Your task to perform on an android device: Open Youtube and go to "Your channel" Image 0: 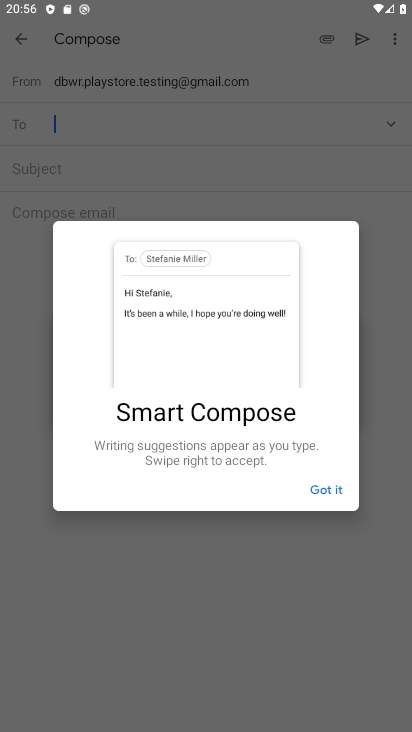
Step 0: press back button
Your task to perform on an android device: Open Youtube and go to "Your channel" Image 1: 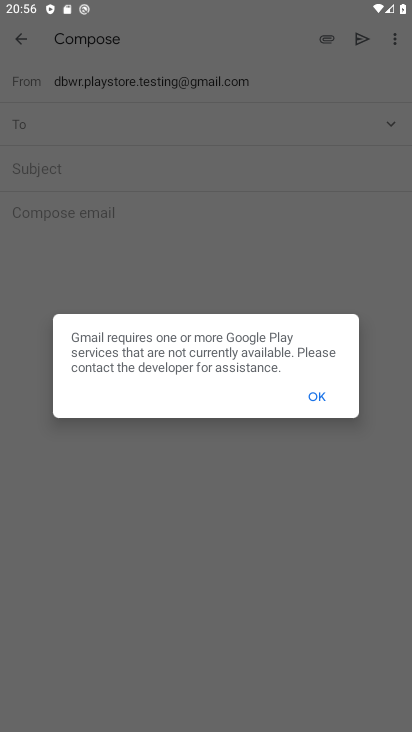
Step 1: press back button
Your task to perform on an android device: Open Youtube and go to "Your channel" Image 2: 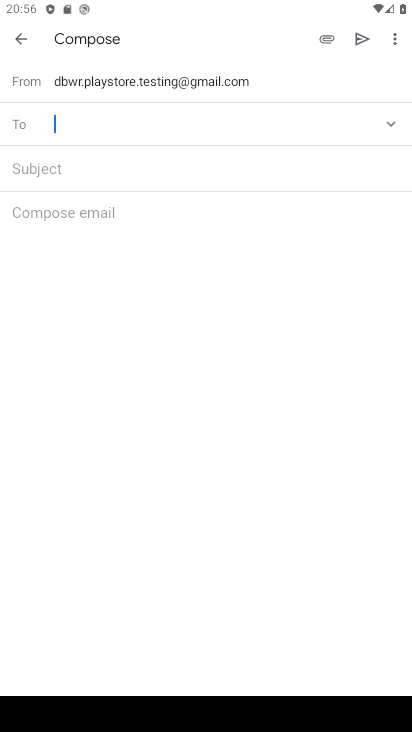
Step 2: press home button
Your task to perform on an android device: Open Youtube and go to "Your channel" Image 3: 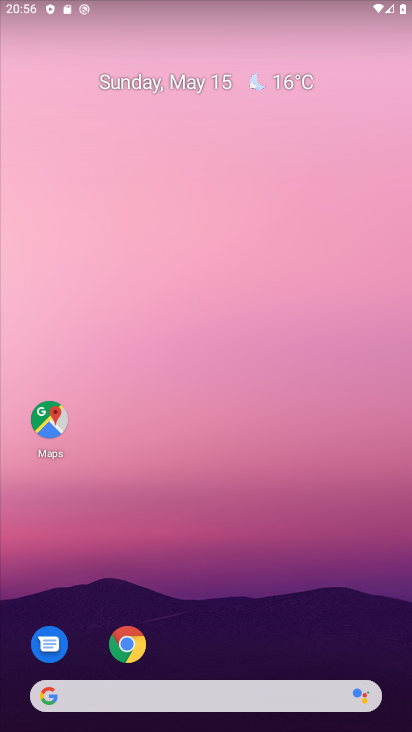
Step 3: drag from (207, 567) to (283, 66)
Your task to perform on an android device: Open Youtube and go to "Your channel" Image 4: 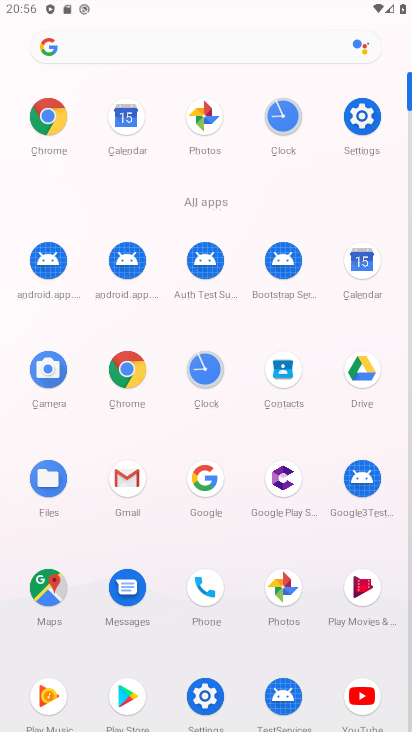
Step 4: click (357, 685)
Your task to perform on an android device: Open Youtube and go to "Your channel" Image 5: 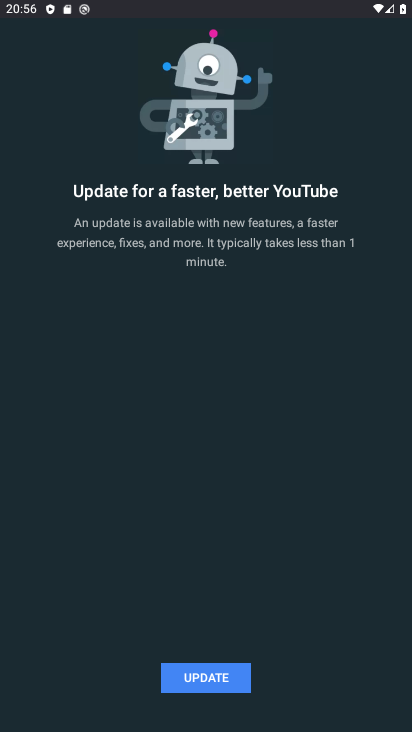
Step 5: click (200, 684)
Your task to perform on an android device: Open Youtube and go to "Your channel" Image 6: 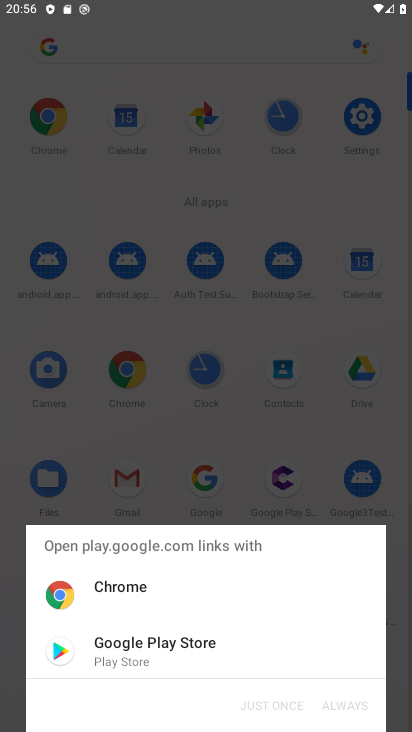
Step 6: click (190, 666)
Your task to perform on an android device: Open Youtube and go to "Your channel" Image 7: 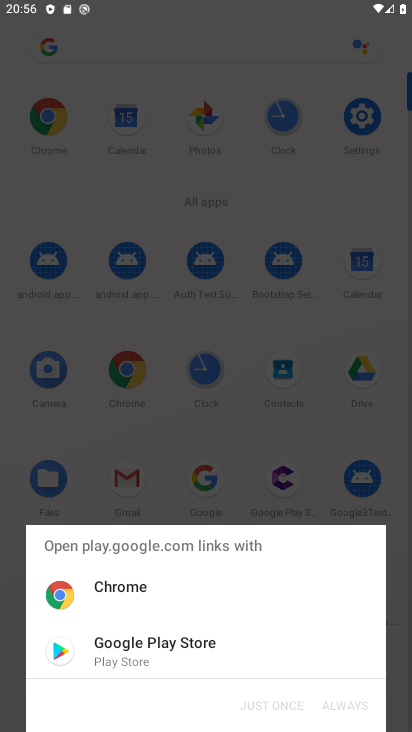
Step 7: click (138, 642)
Your task to perform on an android device: Open Youtube and go to "Your channel" Image 8: 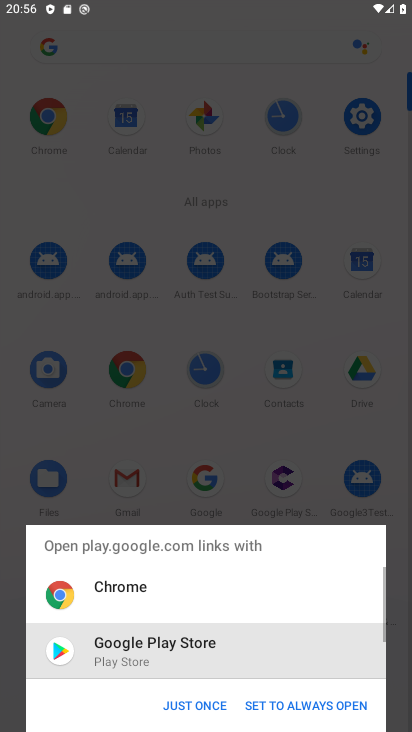
Step 8: click (196, 710)
Your task to perform on an android device: Open Youtube and go to "Your channel" Image 9: 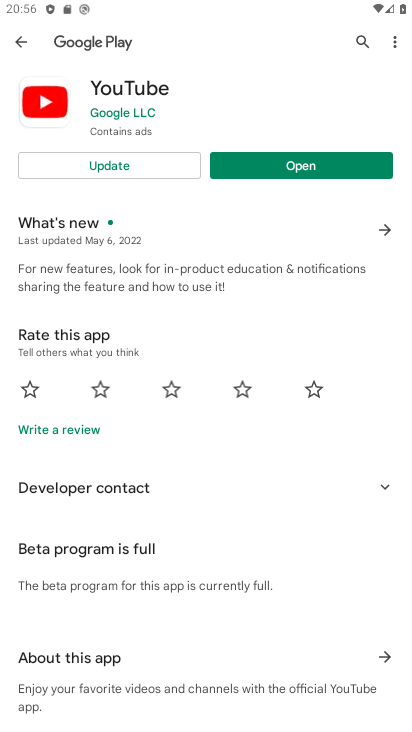
Step 9: click (115, 179)
Your task to perform on an android device: Open Youtube and go to "Your channel" Image 10: 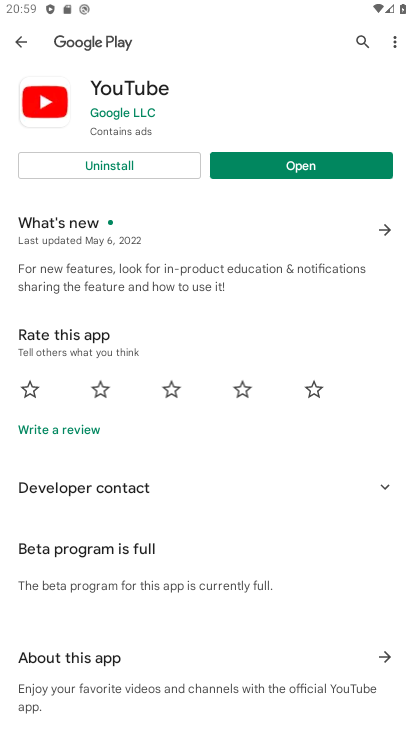
Step 10: click (290, 163)
Your task to perform on an android device: Open Youtube and go to "Your channel" Image 11: 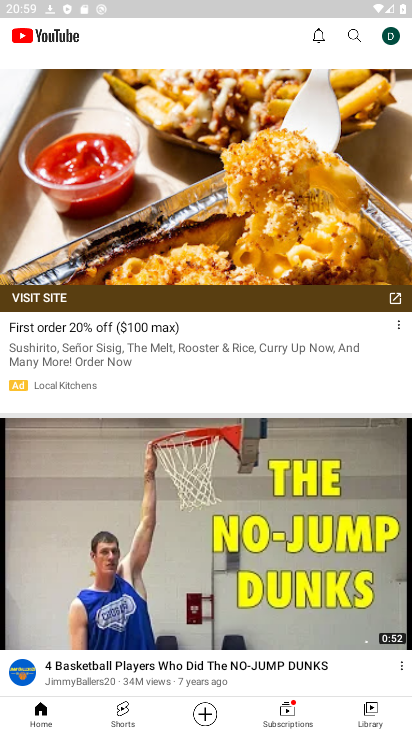
Step 11: click (388, 34)
Your task to perform on an android device: Open Youtube and go to "Your channel" Image 12: 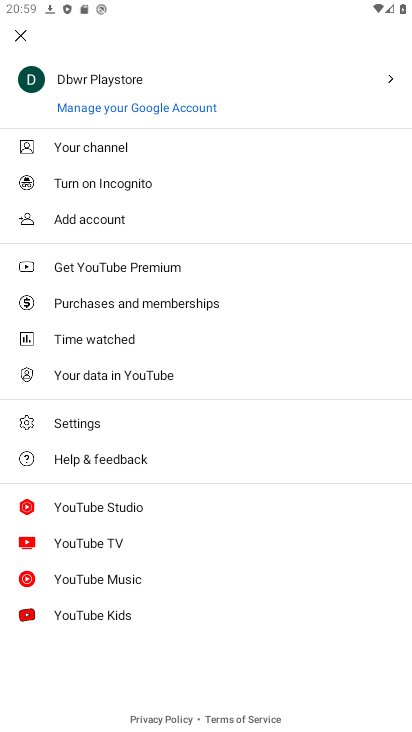
Step 12: click (101, 147)
Your task to perform on an android device: Open Youtube and go to "Your channel" Image 13: 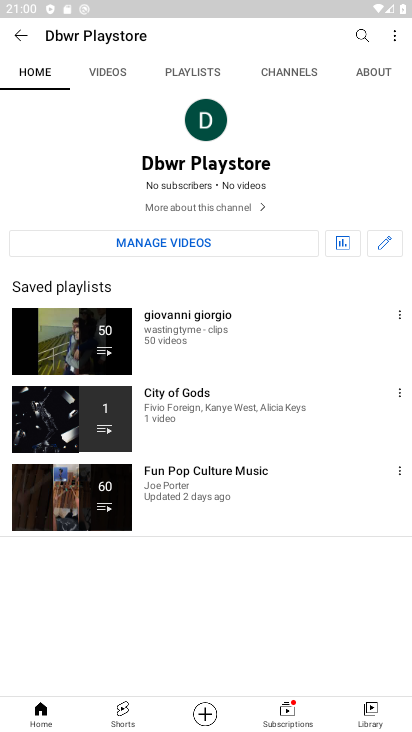
Step 13: task complete